Your task to perform on an android device: What's the weather? Image 0: 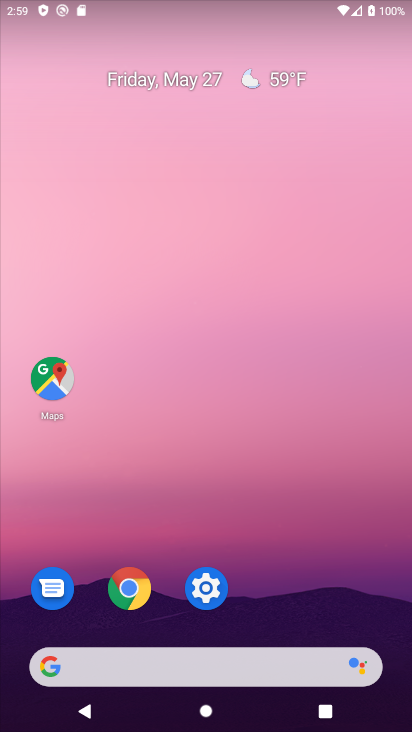
Step 0: drag from (267, 697) to (150, 15)
Your task to perform on an android device: What's the weather? Image 1: 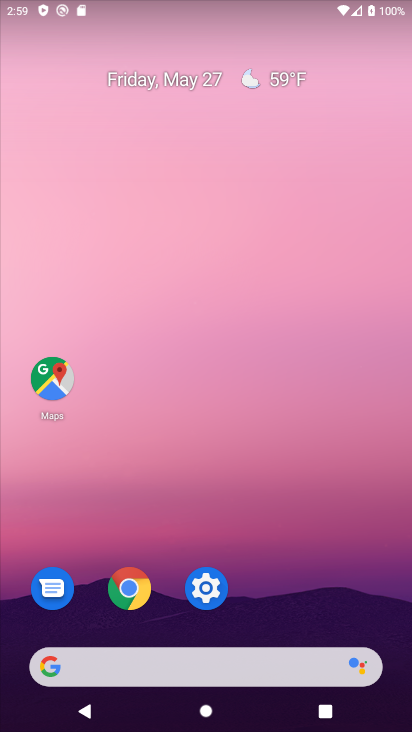
Step 1: drag from (333, 549) to (401, 626)
Your task to perform on an android device: What's the weather? Image 2: 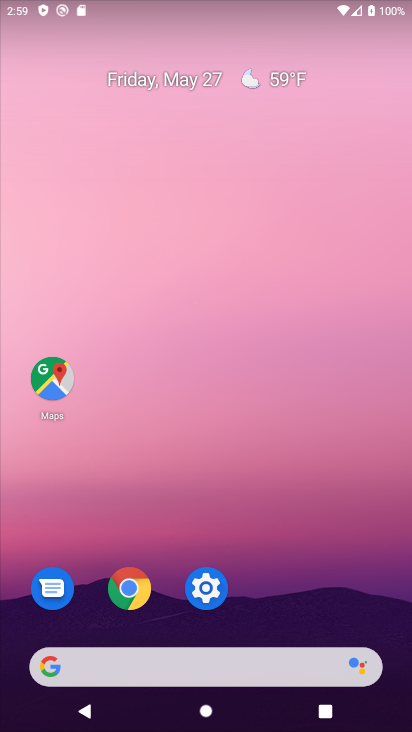
Step 2: drag from (19, 158) to (392, 473)
Your task to perform on an android device: What's the weather? Image 3: 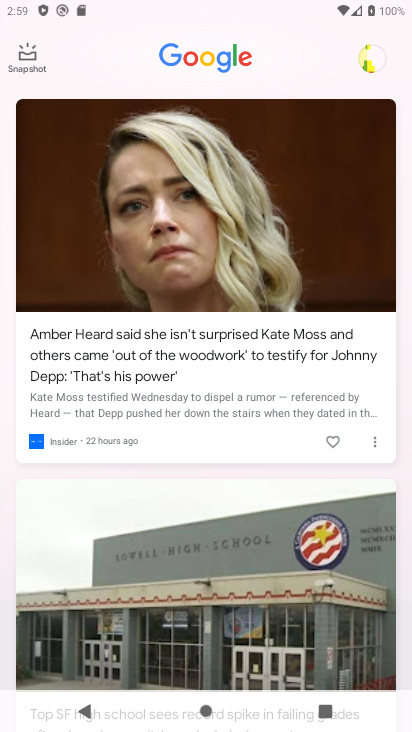
Step 3: drag from (161, 233) to (384, 446)
Your task to perform on an android device: What's the weather? Image 4: 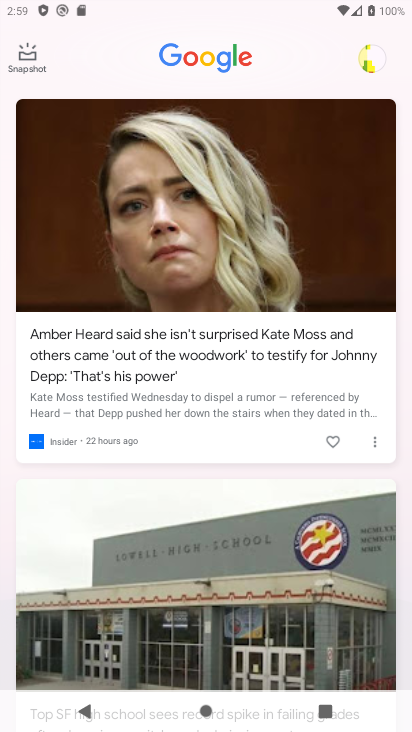
Step 4: drag from (180, 253) to (153, 365)
Your task to perform on an android device: What's the weather? Image 5: 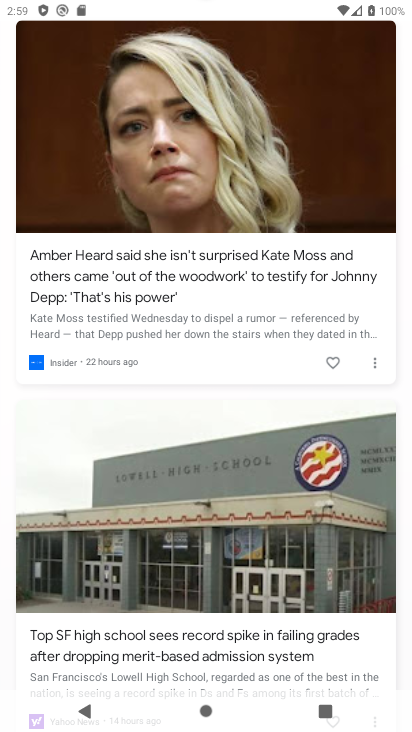
Step 5: drag from (161, 255) to (157, 473)
Your task to perform on an android device: What's the weather? Image 6: 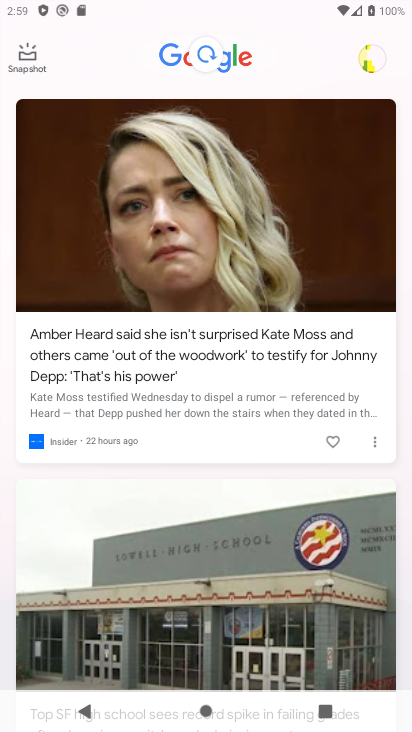
Step 6: drag from (197, 392) to (141, 443)
Your task to perform on an android device: What's the weather? Image 7: 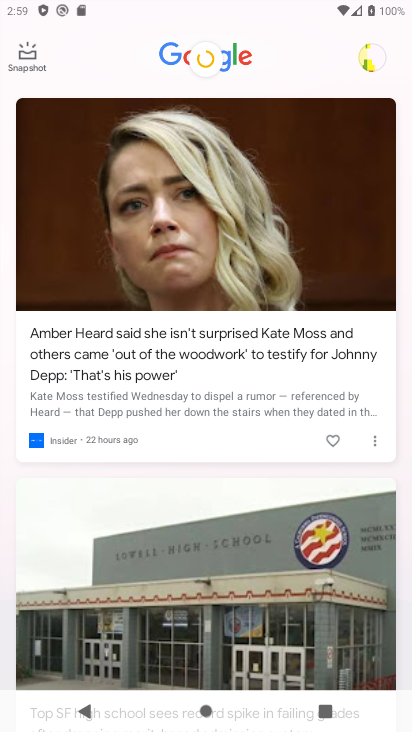
Step 7: drag from (97, 215) to (83, 419)
Your task to perform on an android device: What's the weather? Image 8: 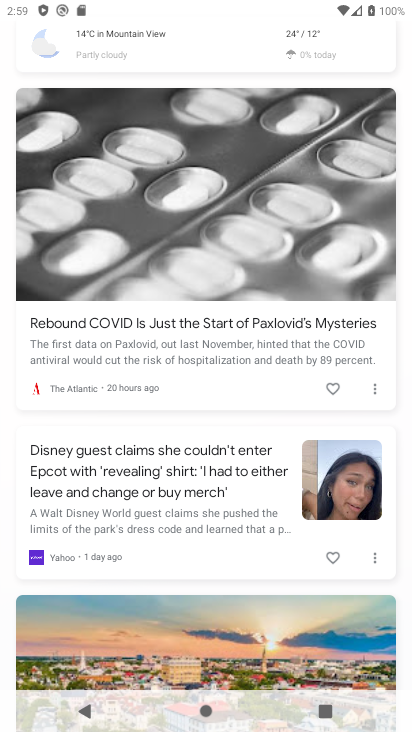
Step 8: drag from (157, 346) to (137, 443)
Your task to perform on an android device: What's the weather? Image 9: 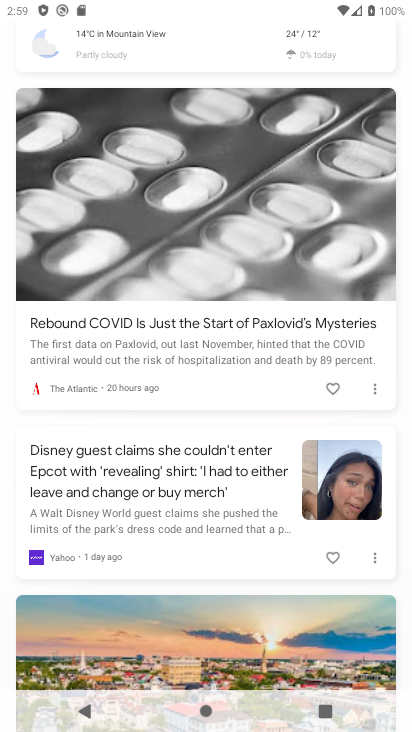
Step 9: drag from (171, 533) to (221, 531)
Your task to perform on an android device: What's the weather? Image 10: 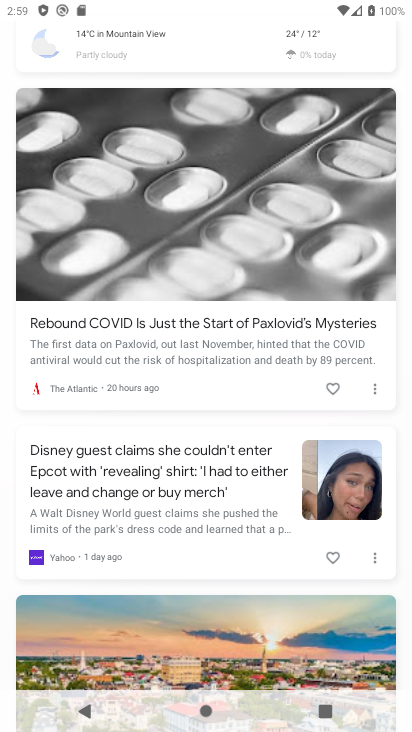
Step 10: drag from (249, 265) to (176, 579)
Your task to perform on an android device: What's the weather? Image 11: 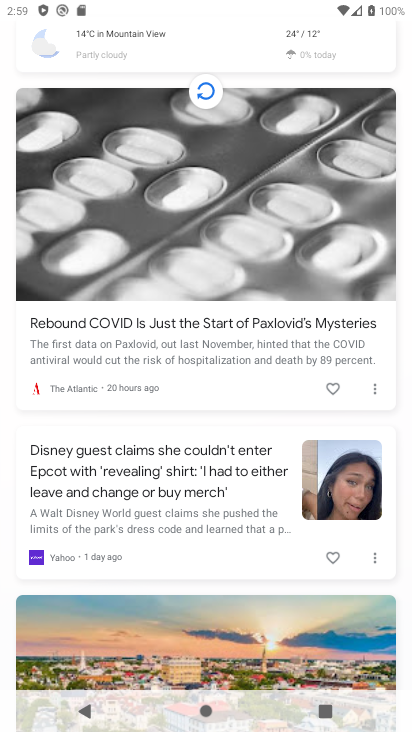
Step 11: click (208, 409)
Your task to perform on an android device: What's the weather? Image 12: 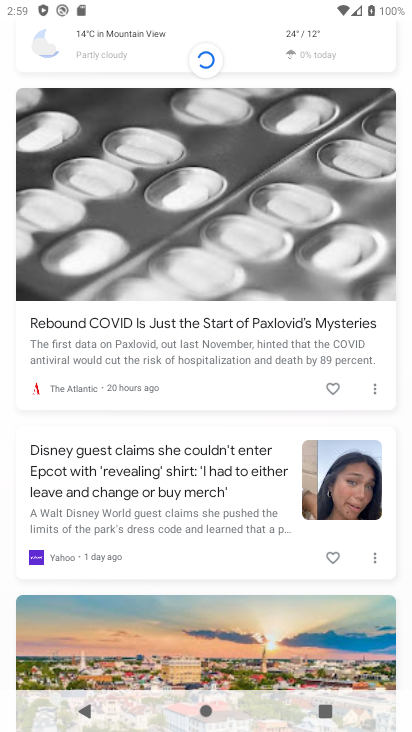
Step 12: drag from (249, 422) to (208, 489)
Your task to perform on an android device: What's the weather? Image 13: 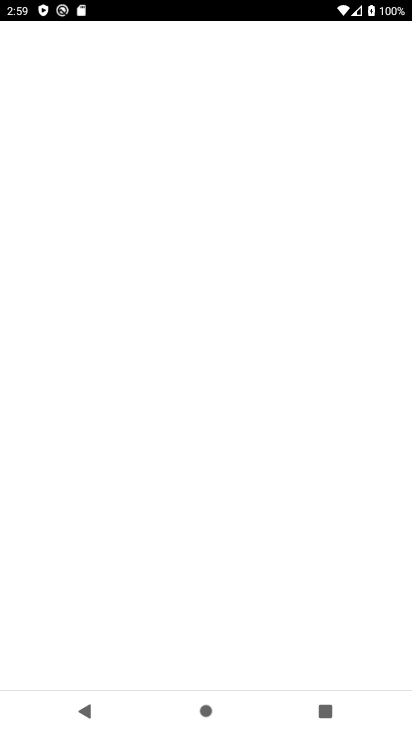
Step 13: drag from (160, 375) to (232, 223)
Your task to perform on an android device: What's the weather? Image 14: 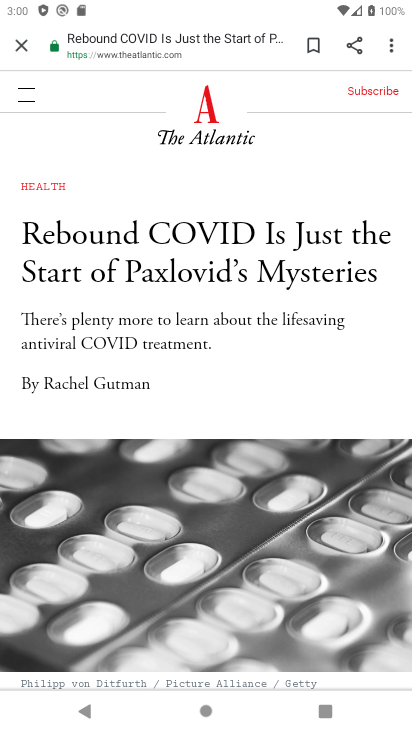
Step 14: drag from (149, 256) to (123, 588)
Your task to perform on an android device: What's the weather? Image 15: 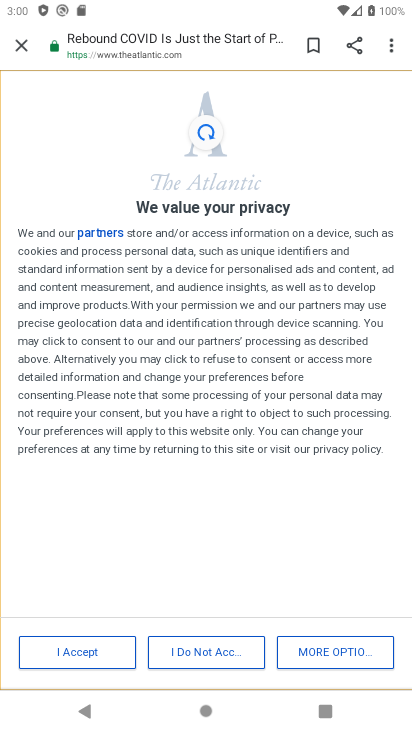
Step 15: drag from (120, 209) to (183, 576)
Your task to perform on an android device: What's the weather? Image 16: 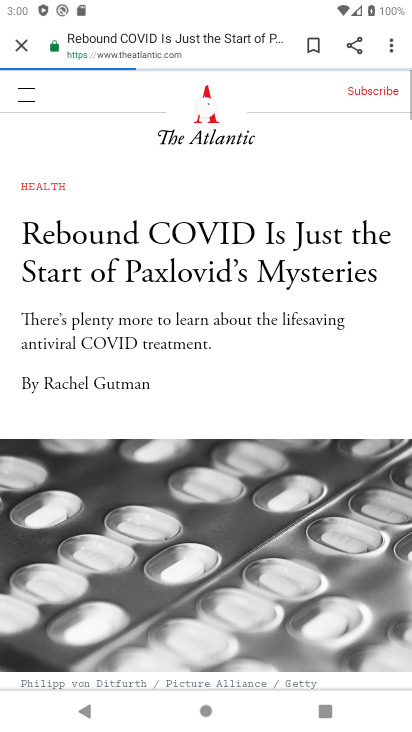
Step 16: drag from (200, 664) to (165, 529)
Your task to perform on an android device: What's the weather? Image 17: 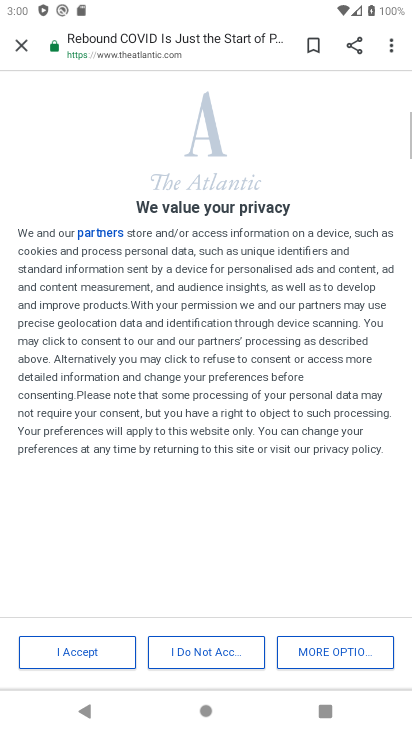
Step 17: drag from (135, 201) to (135, 418)
Your task to perform on an android device: What's the weather? Image 18: 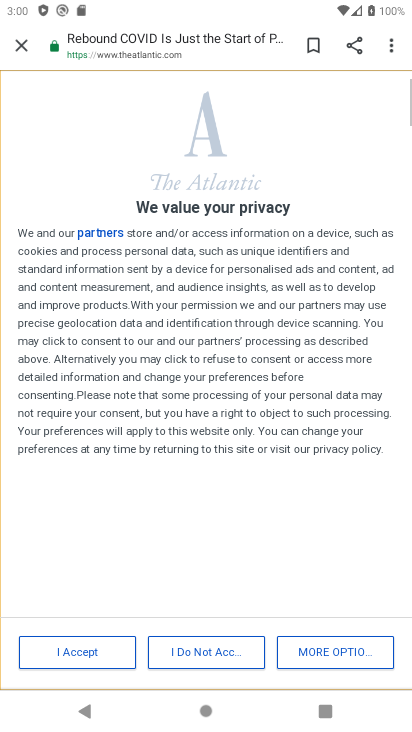
Step 18: click (117, 458)
Your task to perform on an android device: What's the weather? Image 19: 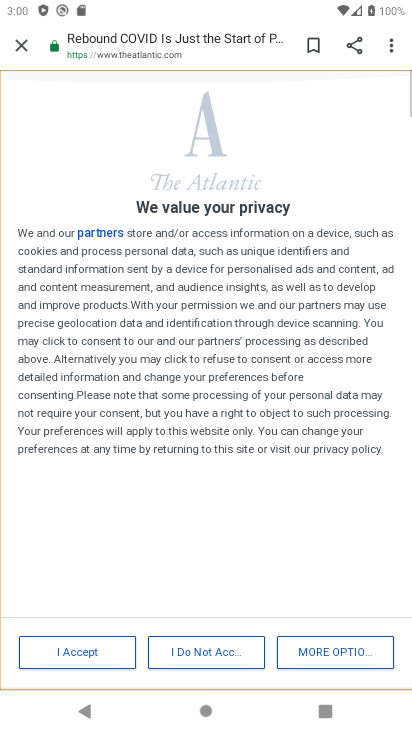
Step 19: task complete